Your task to perform on an android device: stop showing notifications on the lock screen Image 0: 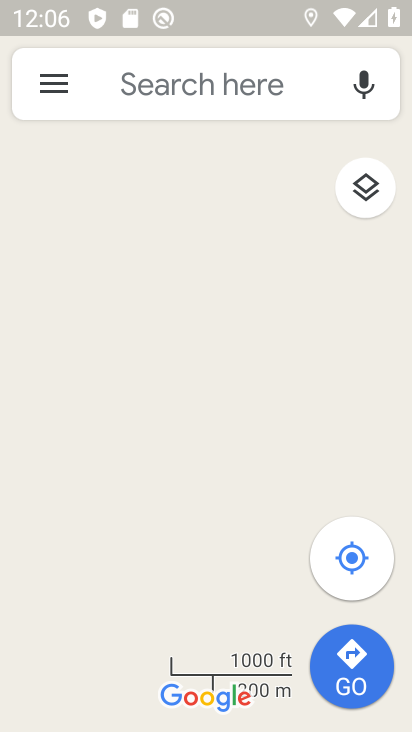
Step 0: press back button
Your task to perform on an android device: stop showing notifications on the lock screen Image 1: 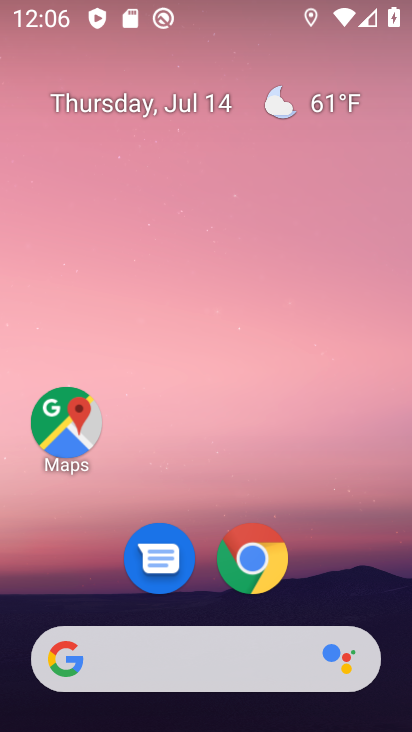
Step 1: drag from (213, 590) to (281, 2)
Your task to perform on an android device: stop showing notifications on the lock screen Image 2: 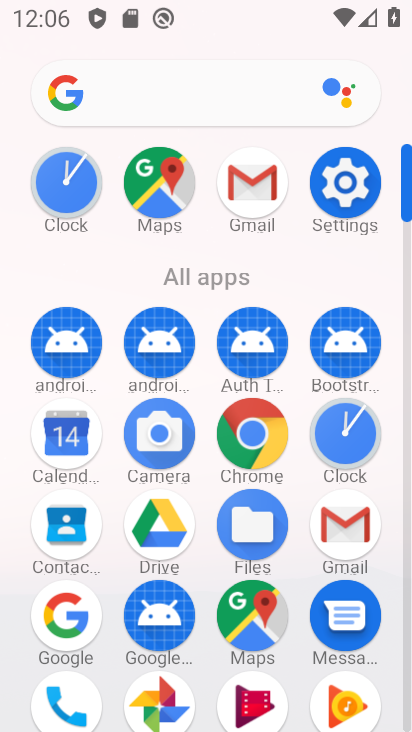
Step 2: click (330, 186)
Your task to perform on an android device: stop showing notifications on the lock screen Image 3: 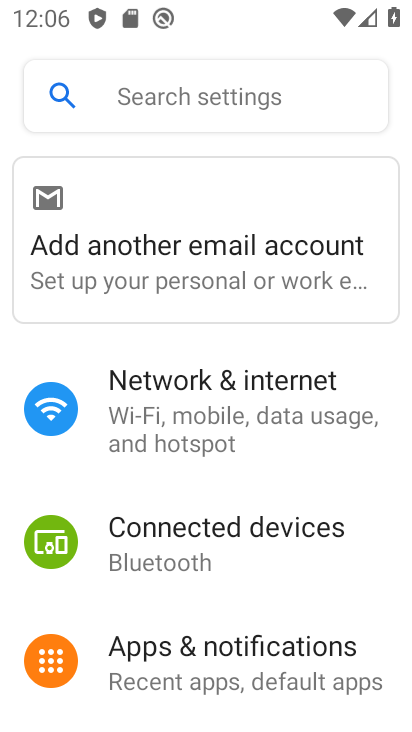
Step 3: click (204, 671)
Your task to perform on an android device: stop showing notifications on the lock screen Image 4: 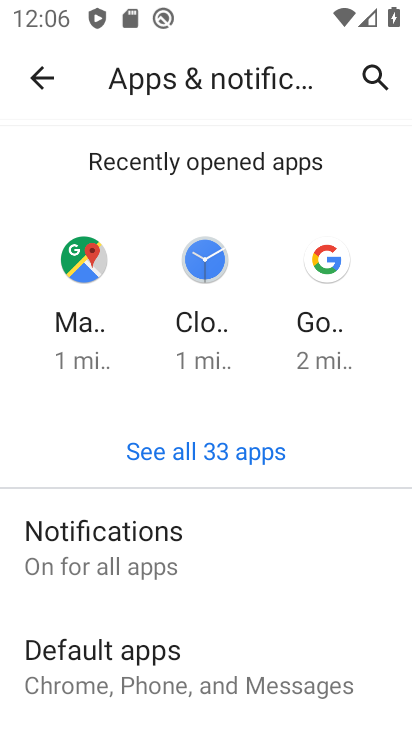
Step 4: click (159, 546)
Your task to perform on an android device: stop showing notifications on the lock screen Image 5: 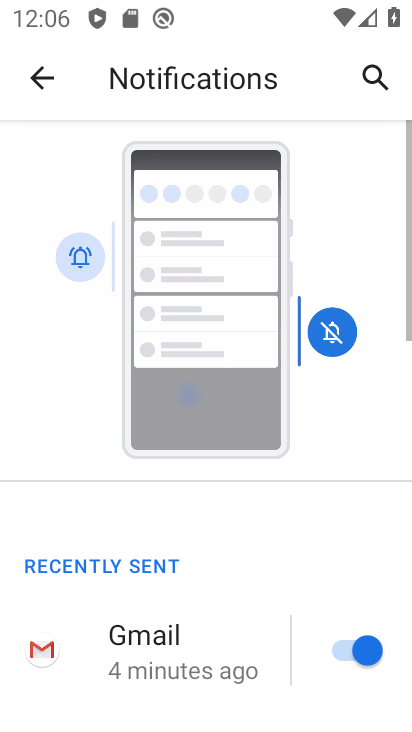
Step 5: drag from (191, 612) to (261, 53)
Your task to perform on an android device: stop showing notifications on the lock screen Image 6: 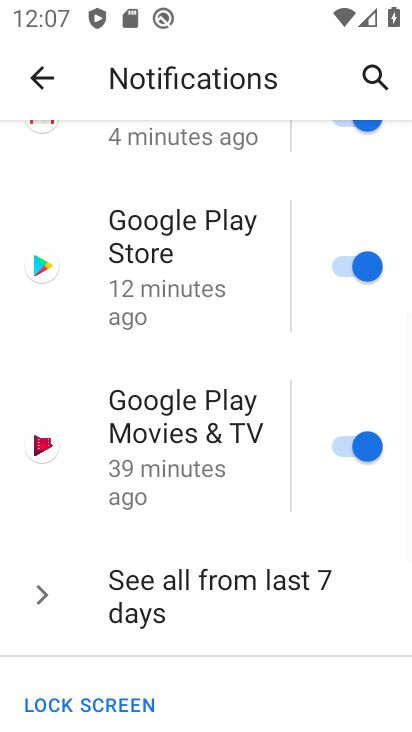
Step 6: drag from (170, 623) to (194, 141)
Your task to perform on an android device: stop showing notifications on the lock screen Image 7: 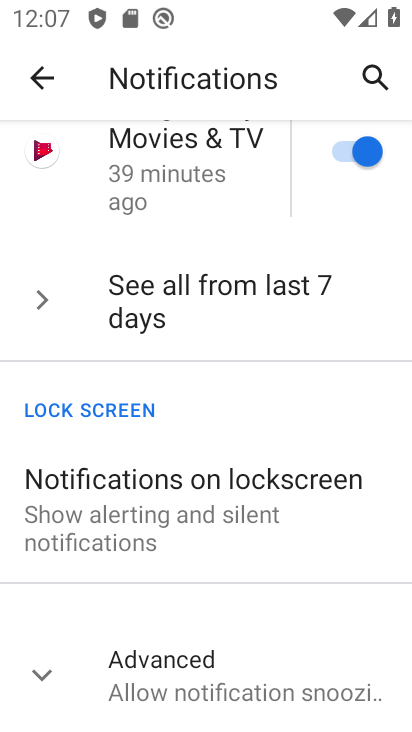
Step 7: click (215, 518)
Your task to perform on an android device: stop showing notifications on the lock screen Image 8: 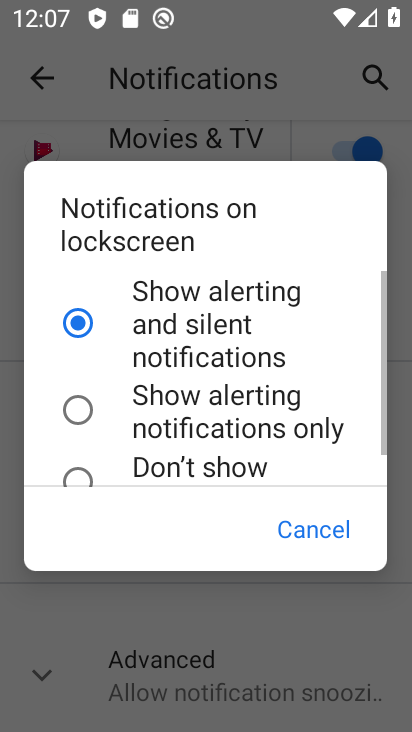
Step 8: click (124, 471)
Your task to perform on an android device: stop showing notifications on the lock screen Image 9: 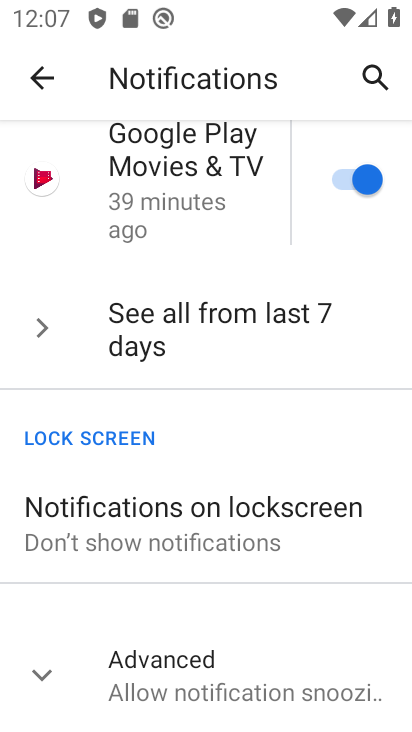
Step 9: task complete